Your task to perform on an android device: Open ESPN.com Image 0: 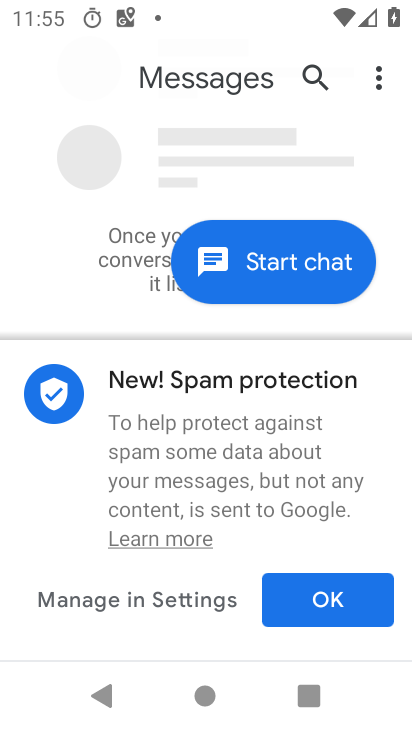
Step 0: press home button
Your task to perform on an android device: Open ESPN.com Image 1: 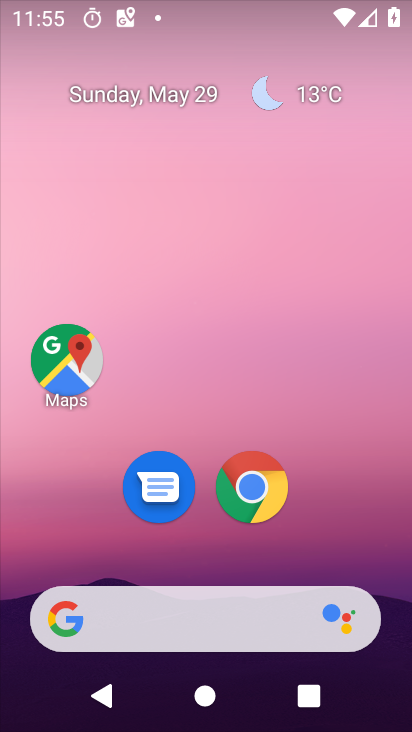
Step 1: click (249, 497)
Your task to perform on an android device: Open ESPN.com Image 2: 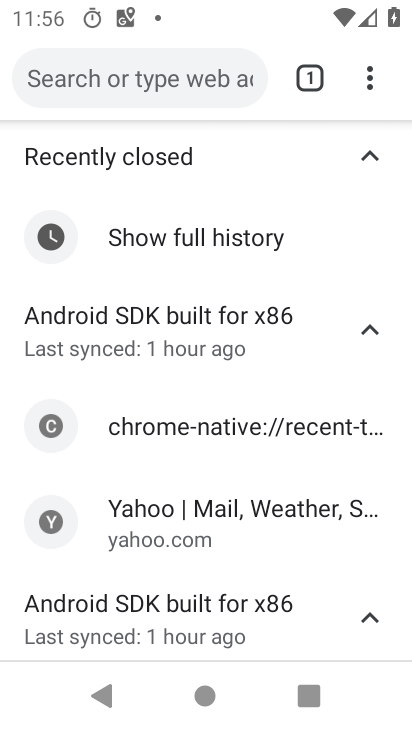
Step 2: click (181, 52)
Your task to perform on an android device: Open ESPN.com Image 3: 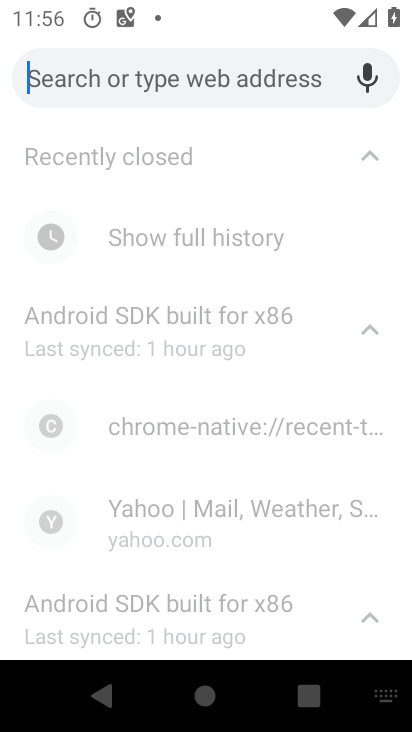
Step 3: type "ESPN.com"
Your task to perform on an android device: Open ESPN.com Image 4: 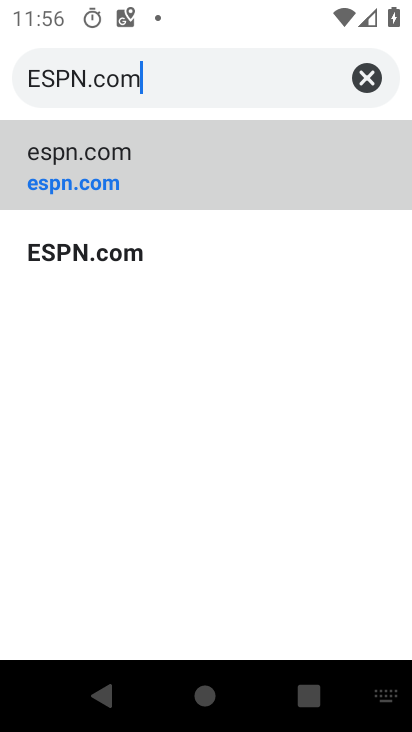
Step 4: click (83, 255)
Your task to perform on an android device: Open ESPN.com Image 5: 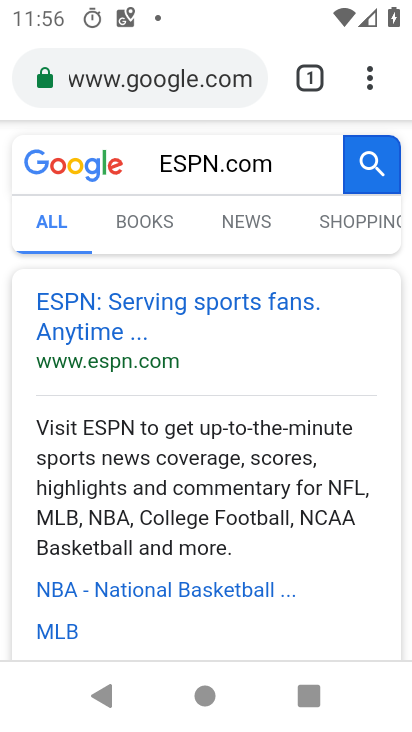
Step 5: task complete